Your task to perform on an android device: turn on data saver in the chrome app Image 0: 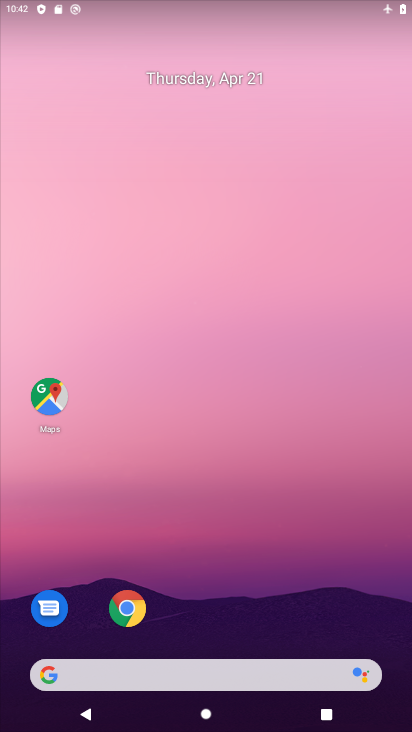
Step 0: drag from (204, 604) to (186, 231)
Your task to perform on an android device: turn on data saver in the chrome app Image 1: 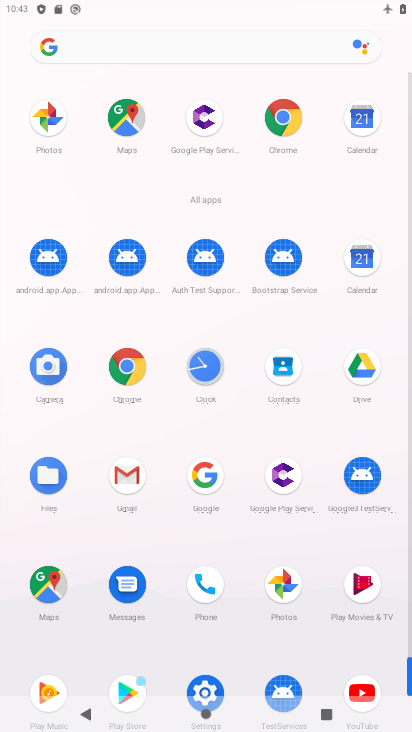
Step 1: click (281, 120)
Your task to perform on an android device: turn on data saver in the chrome app Image 2: 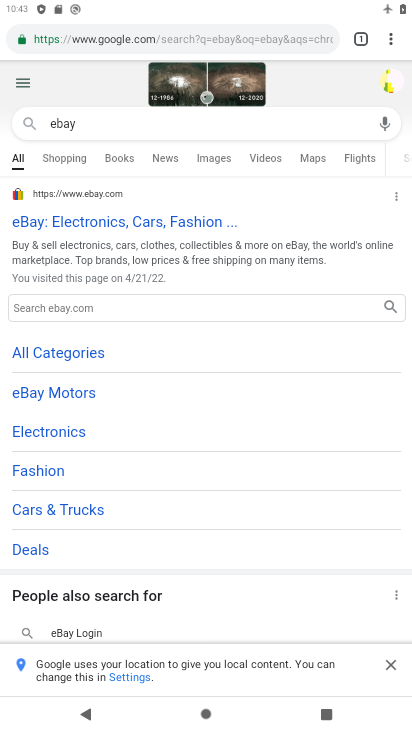
Step 2: click (393, 42)
Your task to perform on an android device: turn on data saver in the chrome app Image 3: 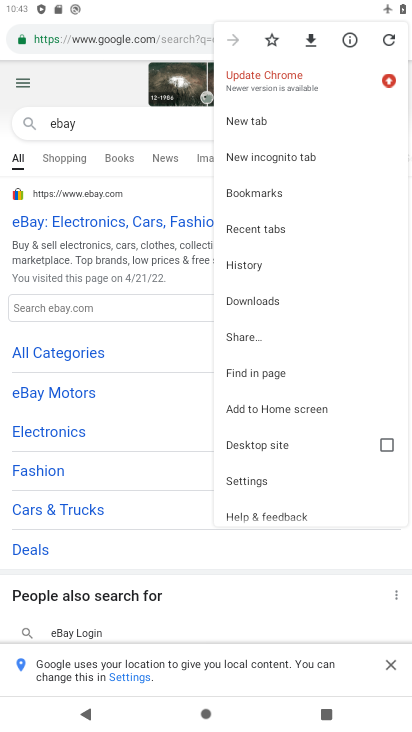
Step 3: click (268, 481)
Your task to perform on an android device: turn on data saver in the chrome app Image 4: 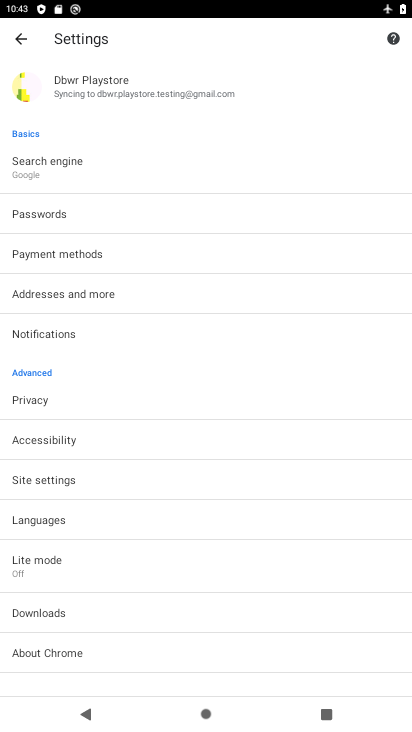
Step 4: click (73, 568)
Your task to perform on an android device: turn on data saver in the chrome app Image 5: 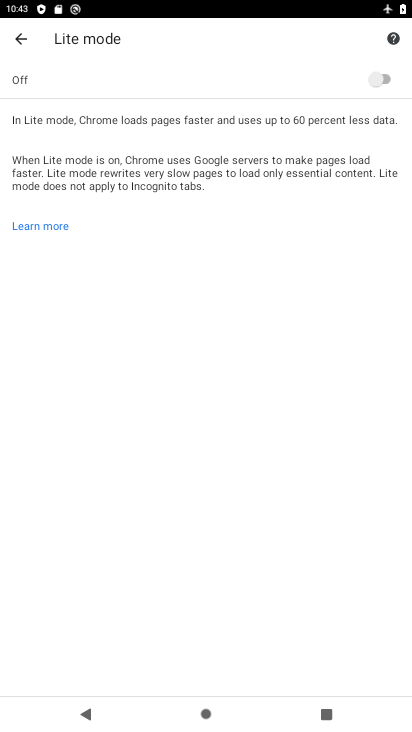
Step 5: click (383, 79)
Your task to perform on an android device: turn on data saver in the chrome app Image 6: 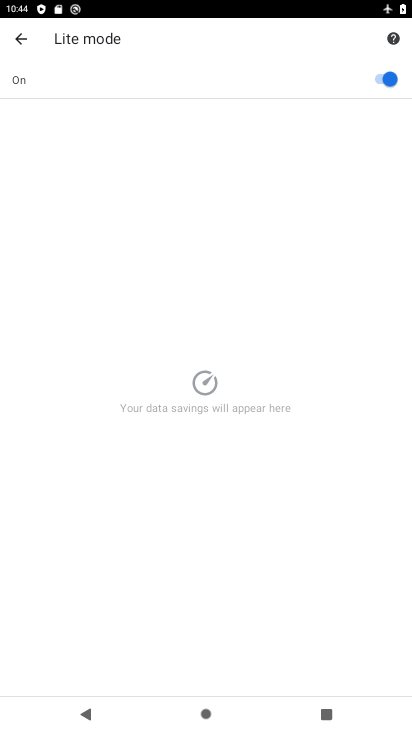
Step 6: task complete